Your task to perform on an android device: Is it going to rain this weekend? Image 0: 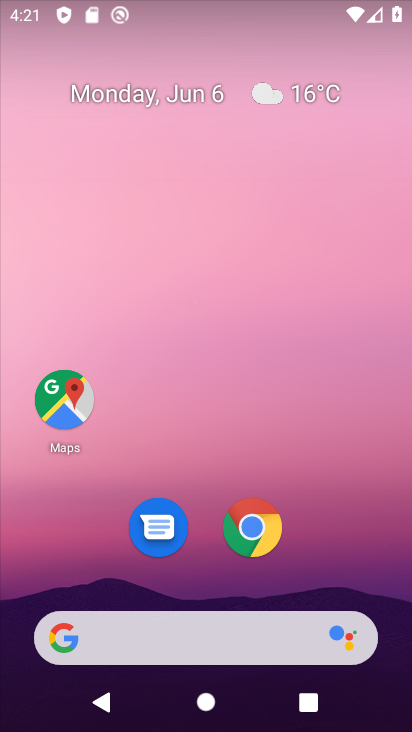
Step 0: drag from (232, 579) to (212, 201)
Your task to perform on an android device: Is it going to rain this weekend? Image 1: 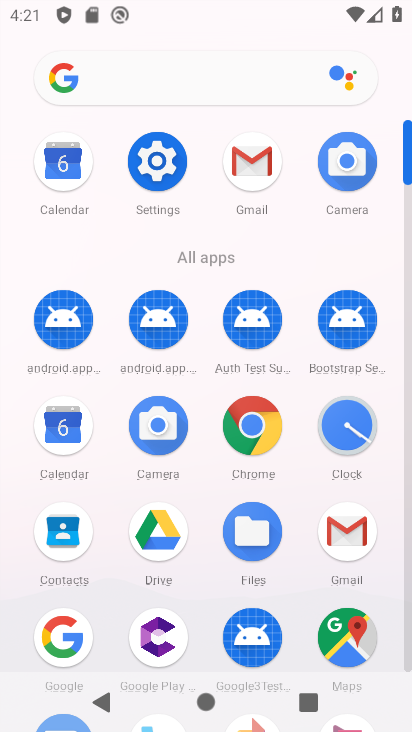
Step 1: click (55, 644)
Your task to perform on an android device: Is it going to rain this weekend? Image 2: 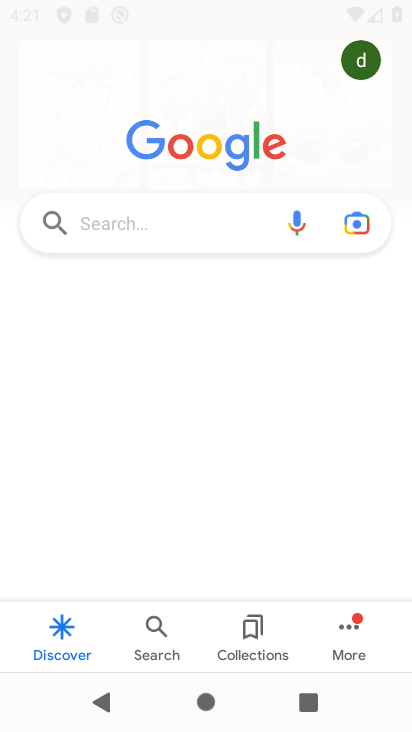
Step 2: click (172, 228)
Your task to perform on an android device: Is it going to rain this weekend? Image 3: 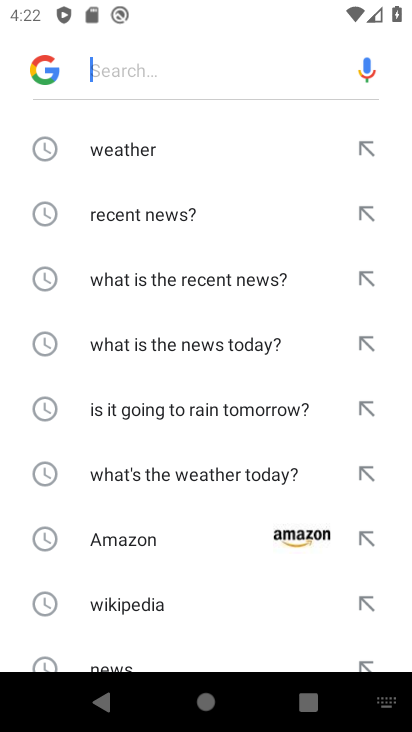
Step 3: drag from (181, 533) to (178, 262)
Your task to perform on an android device: Is it going to rain this weekend? Image 4: 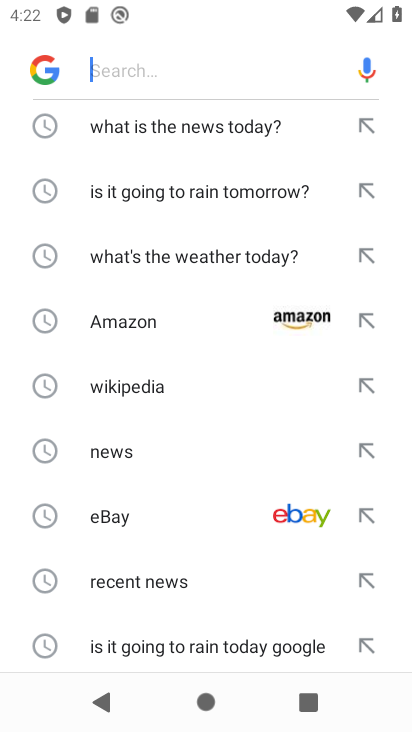
Step 4: drag from (193, 439) to (193, 402)
Your task to perform on an android device: Is it going to rain this weekend? Image 5: 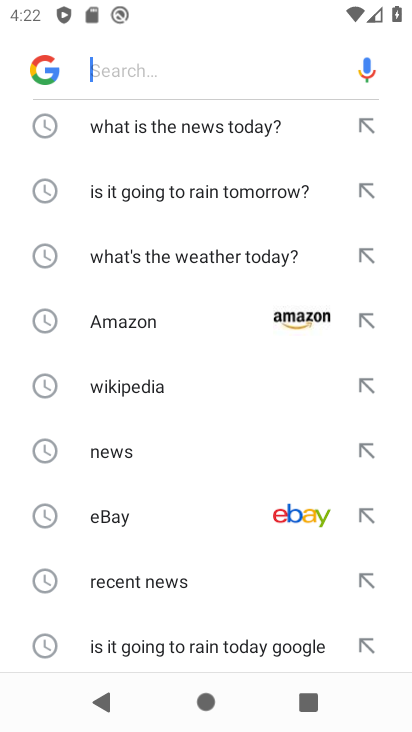
Step 5: drag from (190, 662) to (190, 386)
Your task to perform on an android device: Is it going to rain this weekend? Image 6: 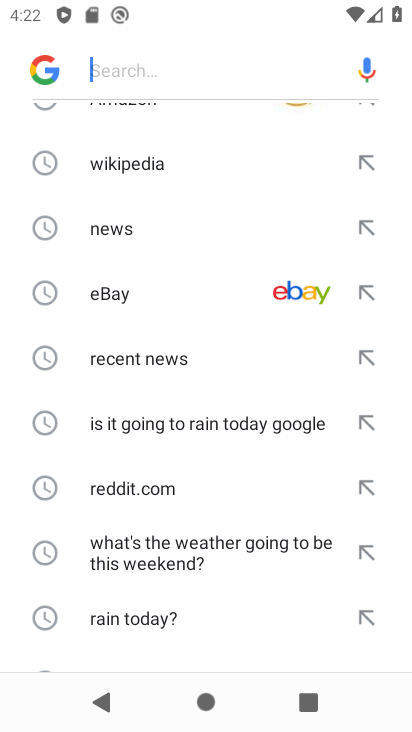
Step 6: drag from (196, 638) to (195, 322)
Your task to perform on an android device: Is it going to rain this weekend? Image 7: 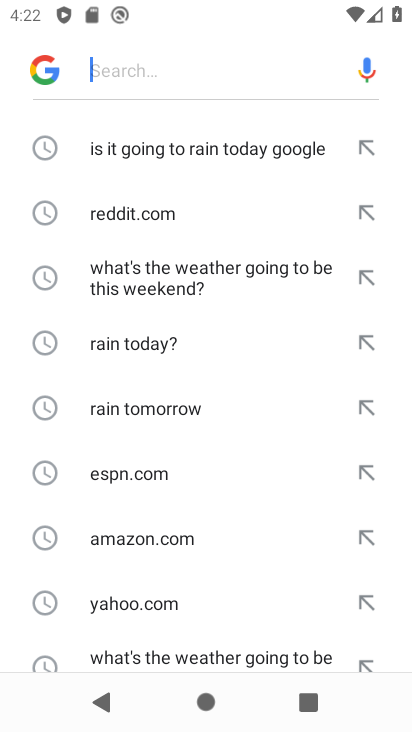
Step 7: drag from (216, 599) to (191, 234)
Your task to perform on an android device: Is it going to rain this weekend? Image 8: 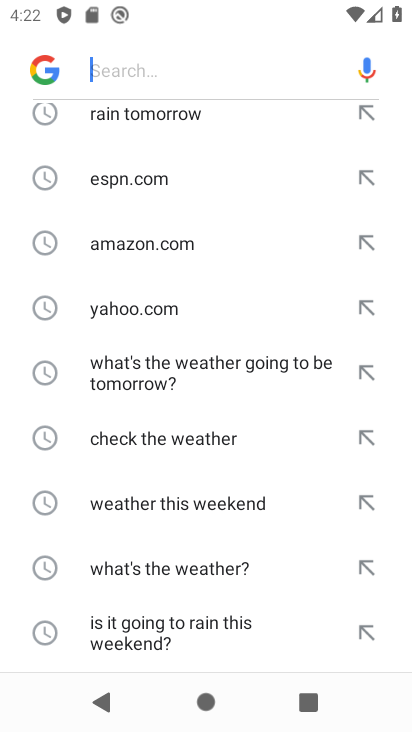
Step 8: click (142, 628)
Your task to perform on an android device: Is it going to rain this weekend? Image 9: 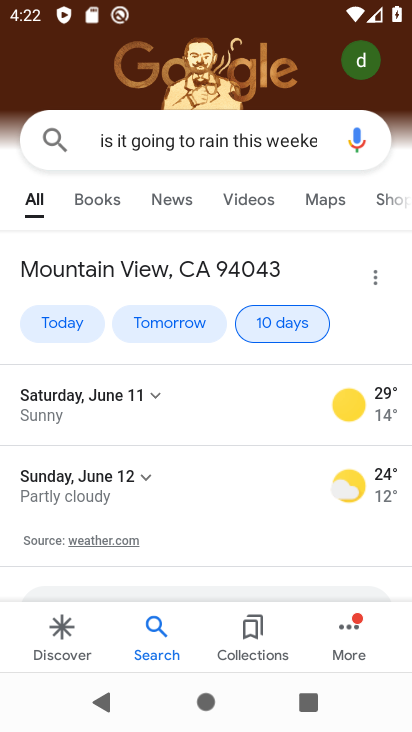
Step 9: task complete